Your task to perform on an android device: turn off sleep mode Image 0: 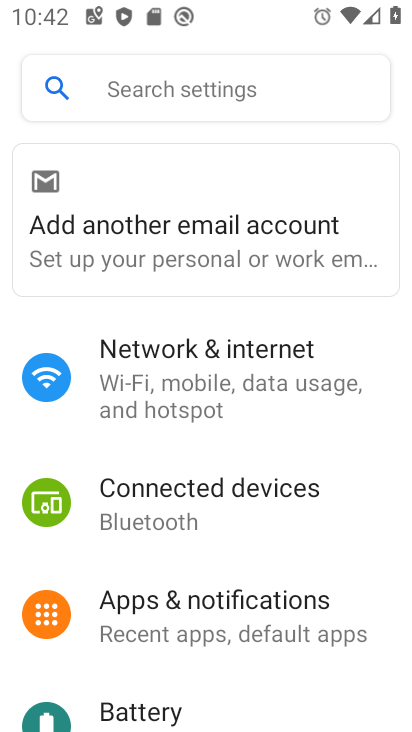
Step 0: drag from (350, 439) to (312, 173)
Your task to perform on an android device: turn off sleep mode Image 1: 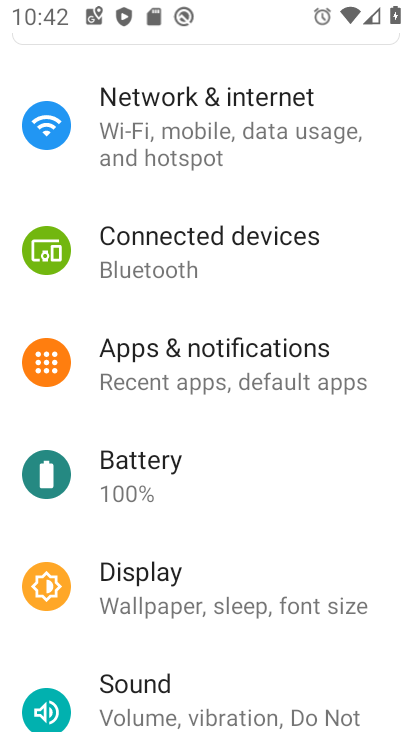
Step 1: click (177, 583)
Your task to perform on an android device: turn off sleep mode Image 2: 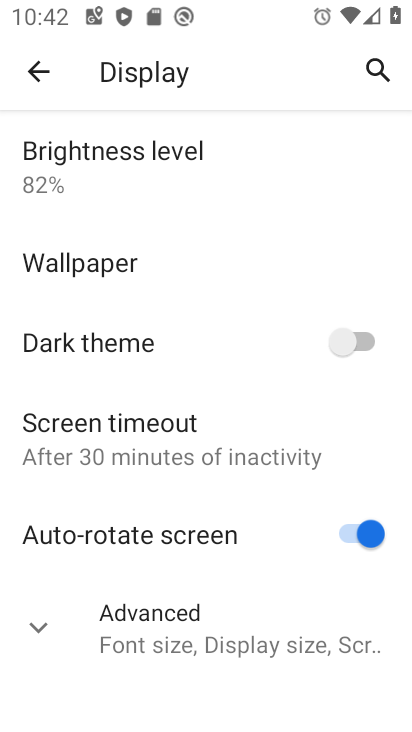
Step 2: click (198, 429)
Your task to perform on an android device: turn off sleep mode Image 3: 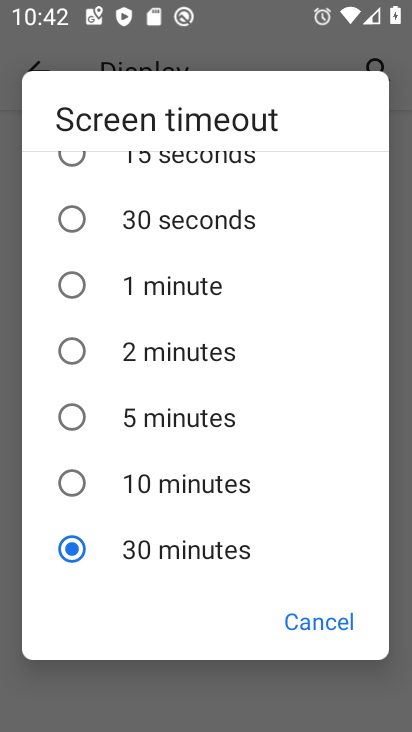
Step 3: task complete